Your task to perform on an android device: Open the stopwatch Image 0: 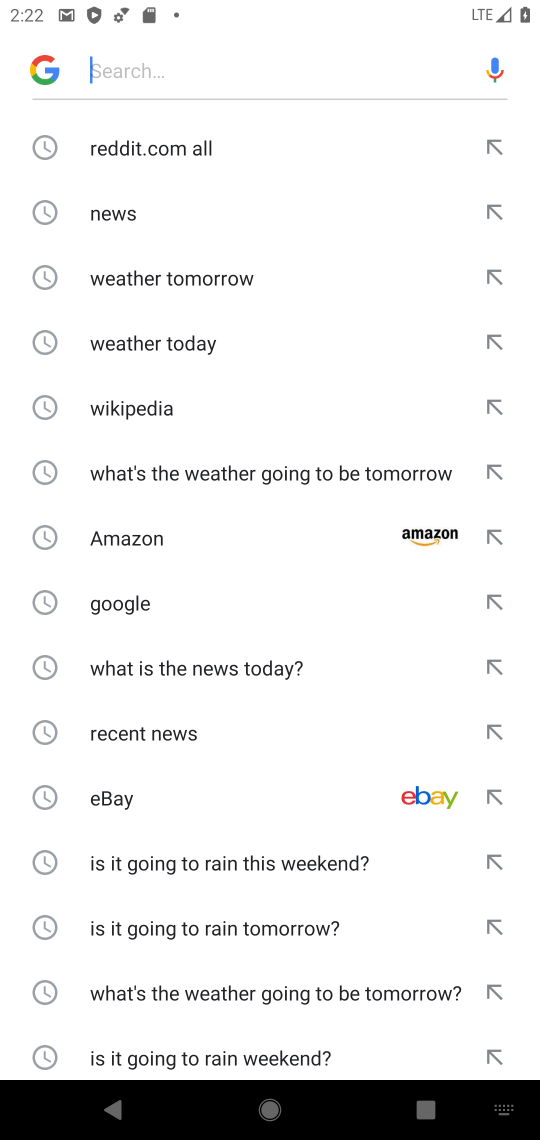
Step 0: press home button
Your task to perform on an android device: Open the stopwatch Image 1: 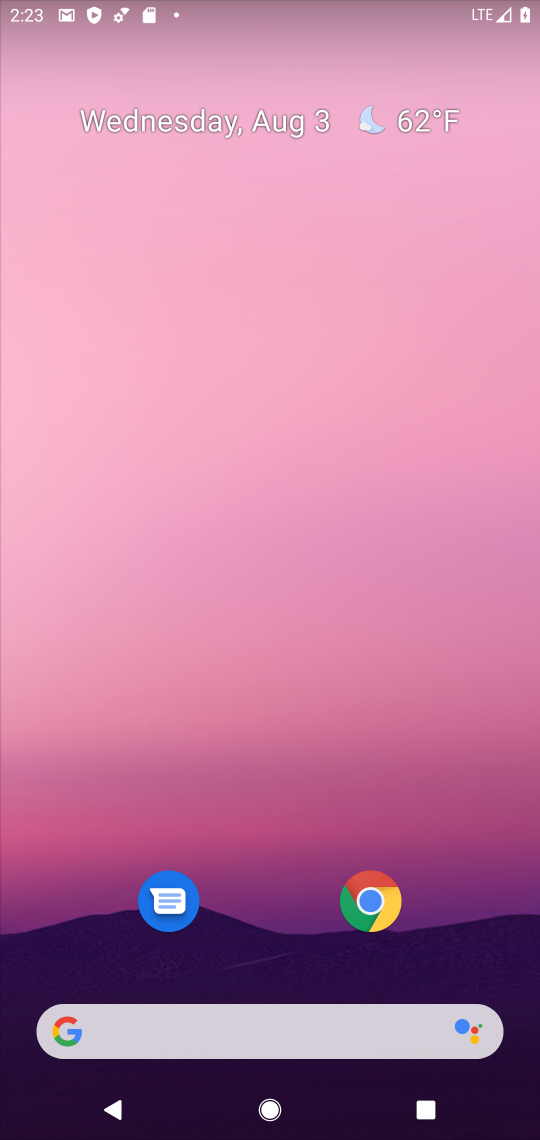
Step 1: drag from (304, 1005) to (231, 424)
Your task to perform on an android device: Open the stopwatch Image 2: 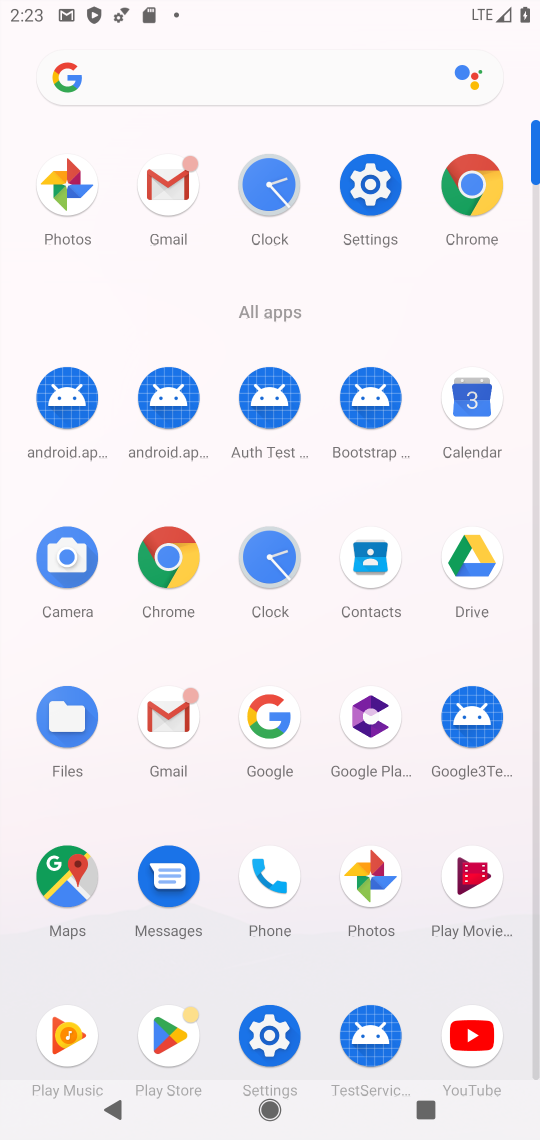
Step 2: click (269, 531)
Your task to perform on an android device: Open the stopwatch Image 3: 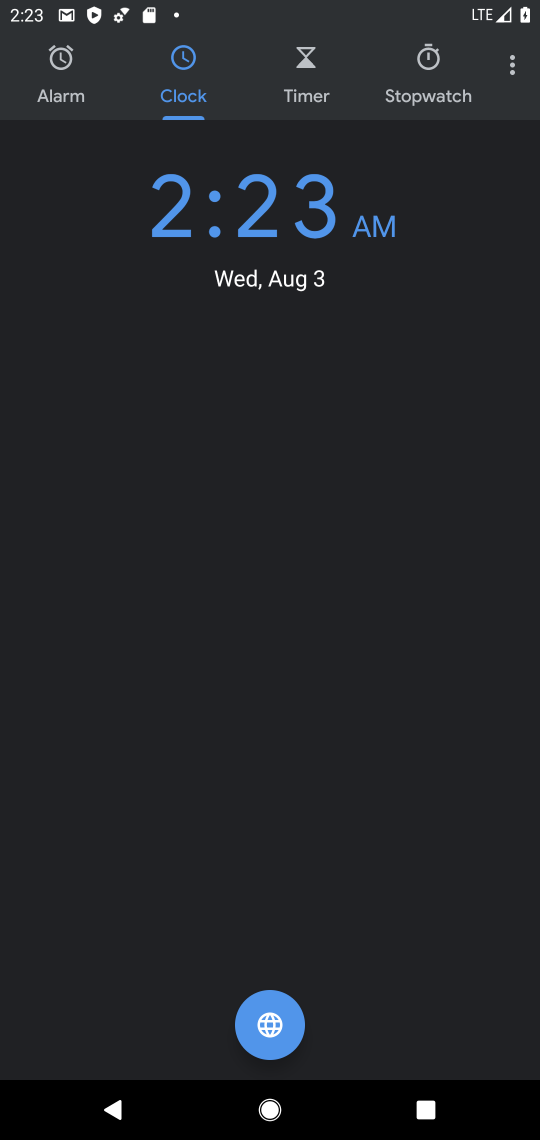
Step 3: click (427, 79)
Your task to perform on an android device: Open the stopwatch Image 4: 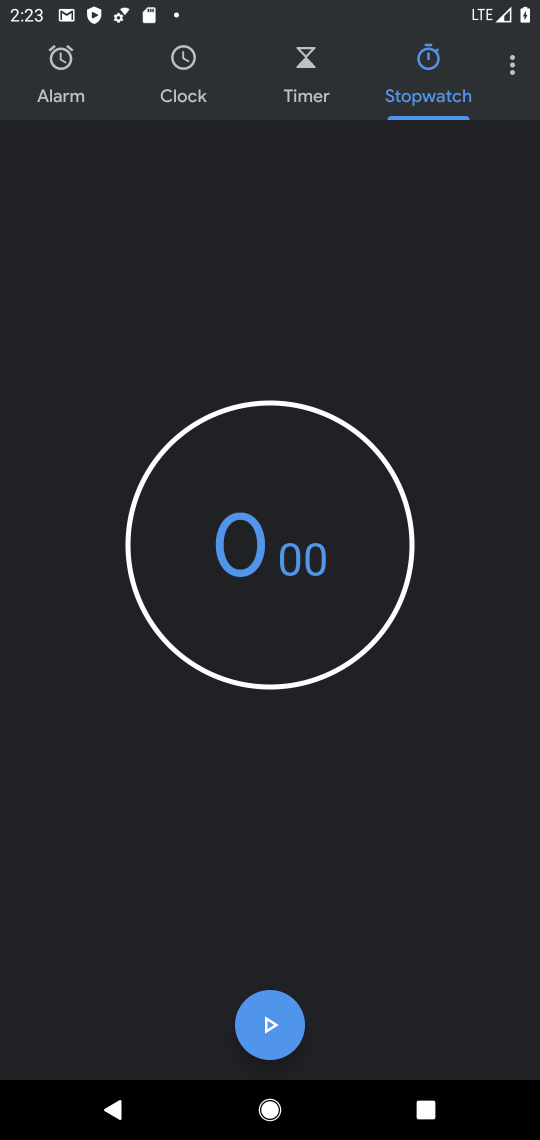
Step 4: task complete